Your task to perform on an android device: What is the news today? Image 0: 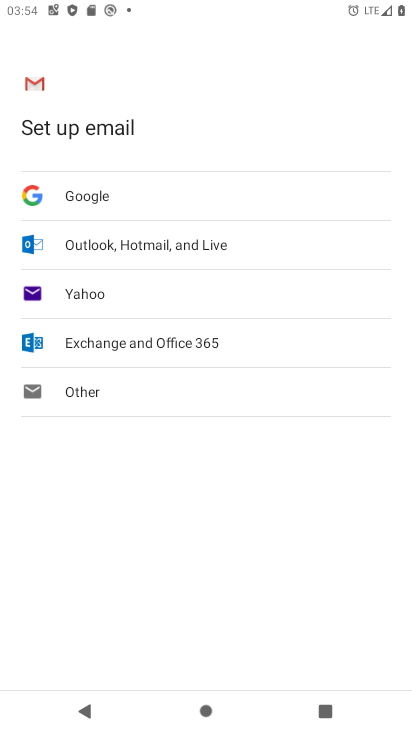
Step 0: press home button
Your task to perform on an android device: What is the news today? Image 1: 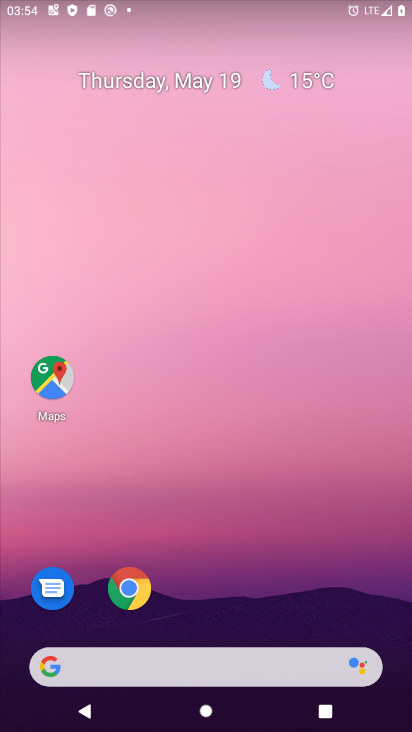
Step 1: drag from (324, 514) to (241, 71)
Your task to perform on an android device: What is the news today? Image 2: 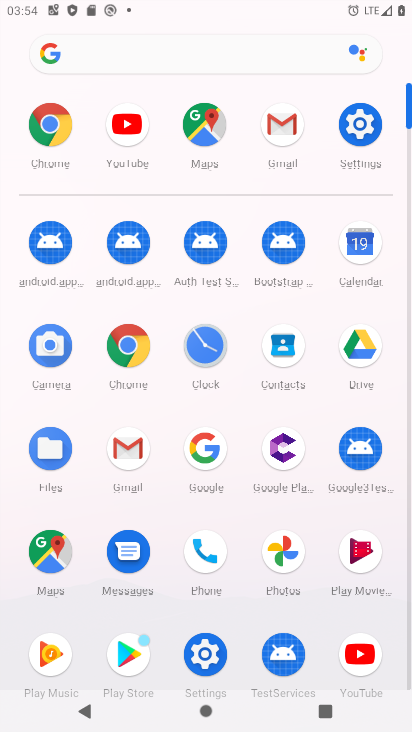
Step 2: click (51, 126)
Your task to perform on an android device: What is the news today? Image 3: 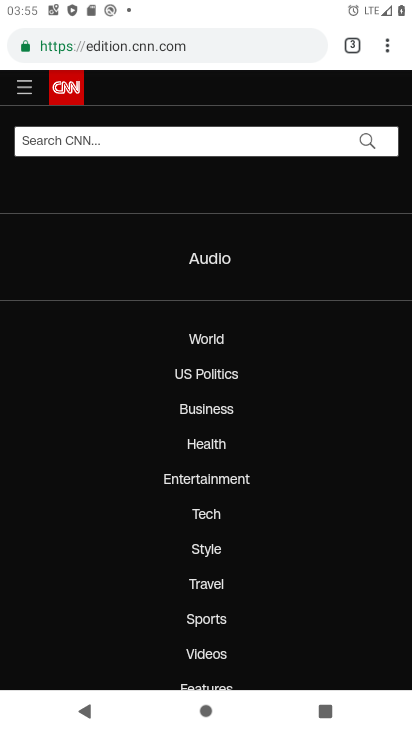
Step 3: click (159, 53)
Your task to perform on an android device: What is the news today? Image 4: 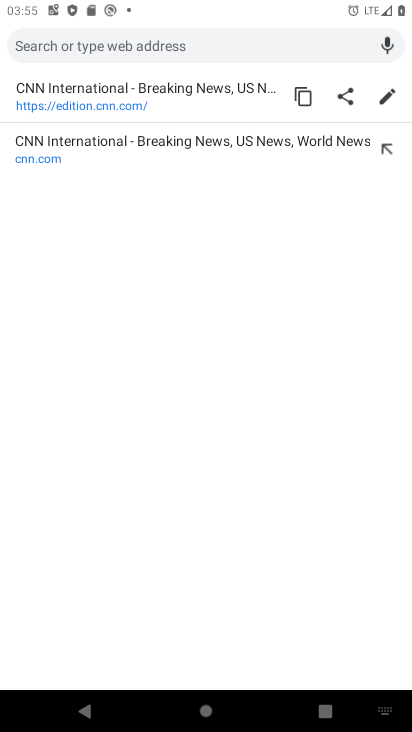
Step 4: type "news"
Your task to perform on an android device: What is the news today? Image 5: 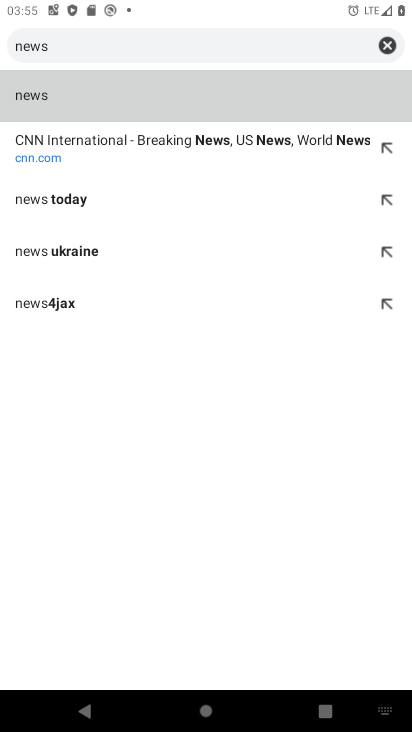
Step 5: click (49, 86)
Your task to perform on an android device: What is the news today? Image 6: 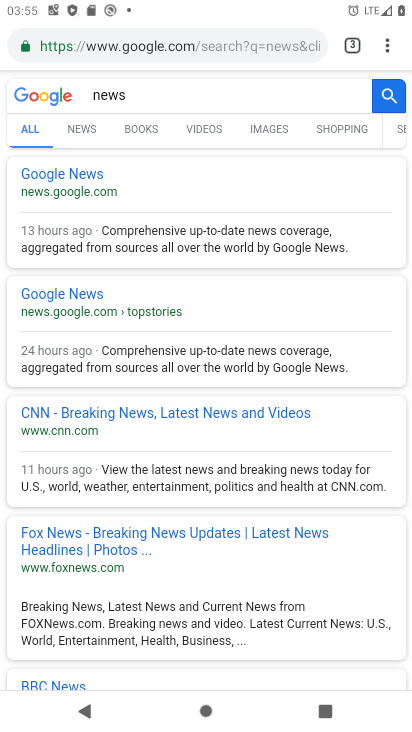
Step 6: click (79, 127)
Your task to perform on an android device: What is the news today? Image 7: 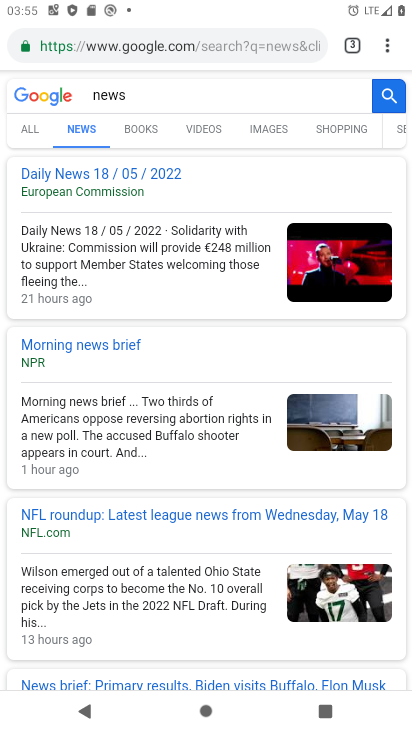
Step 7: task complete